Your task to perform on an android device: toggle notification dots Image 0: 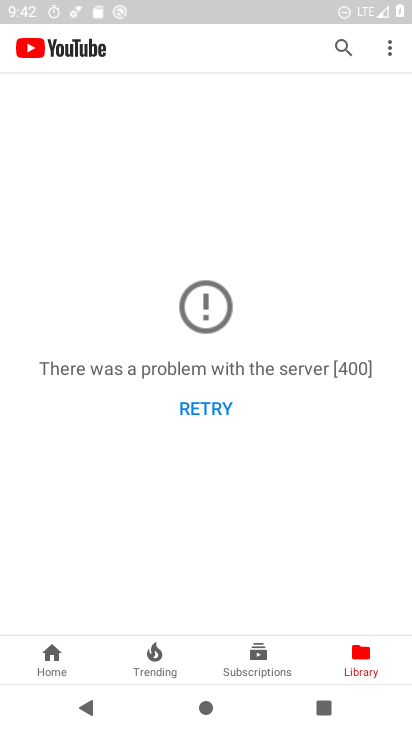
Step 0: press home button
Your task to perform on an android device: toggle notification dots Image 1: 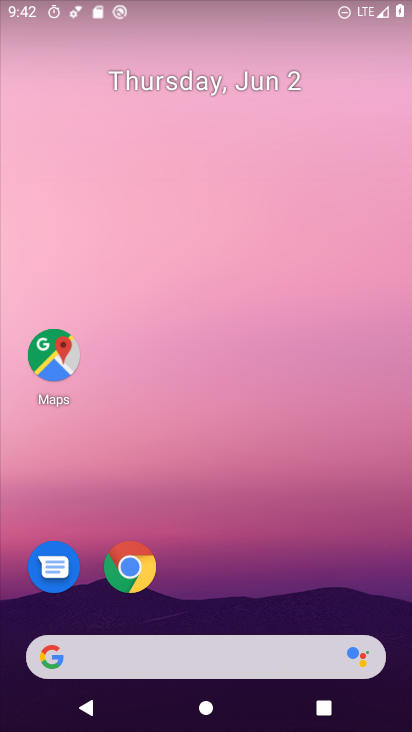
Step 1: drag from (384, 593) to (332, 9)
Your task to perform on an android device: toggle notification dots Image 2: 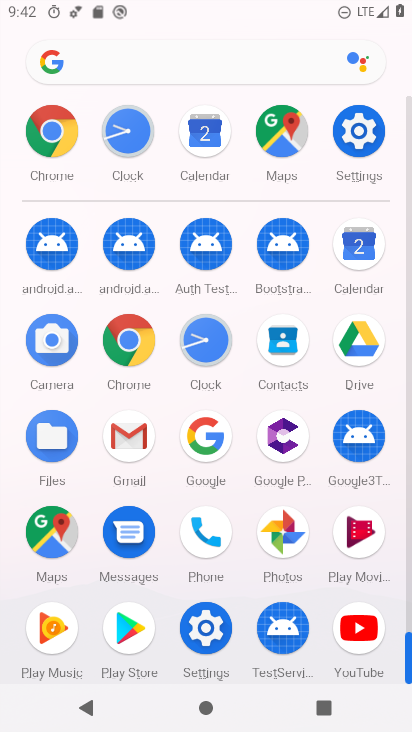
Step 2: click (206, 644)
Your task to perform on an android device: toggle notification dots Image 3: 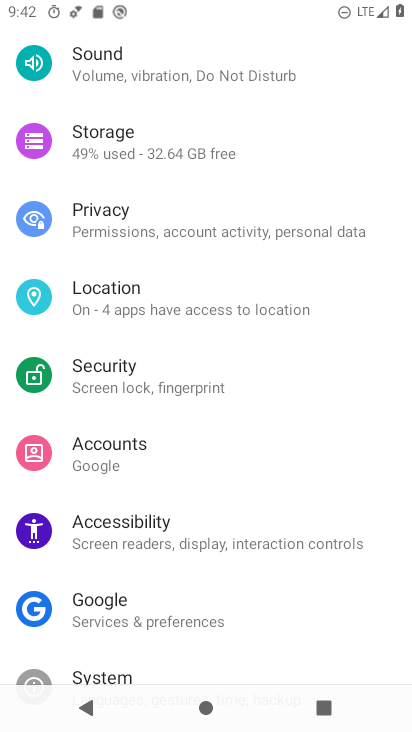
Step 3: drag from (230, 246) to (222, 630)
Your task to perform on an android device: toggle notification dots Image 4: 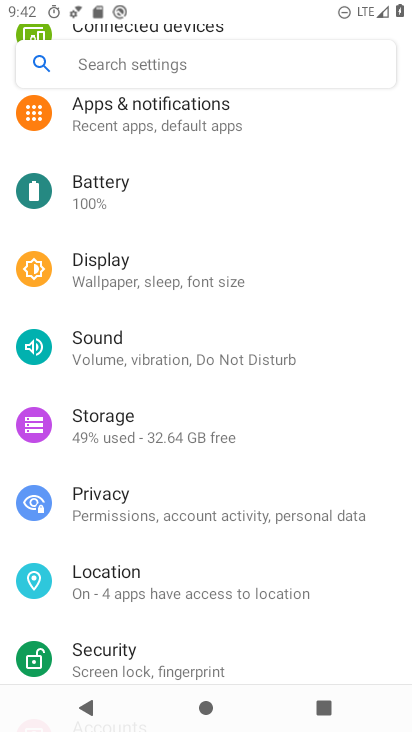
Step 4: click (218, 124)
Your task to perform on an android device: toggle notification dots Image 5: 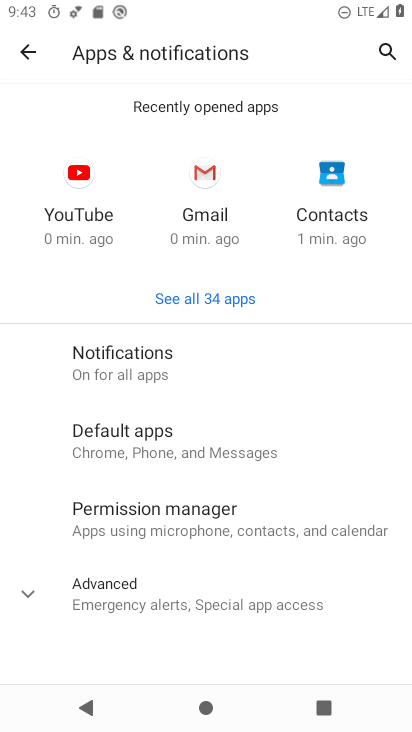
Step 5: drag from (282, 643) to (335, 263)
Your task to perform on an android device: toggle notification dots Image 6: 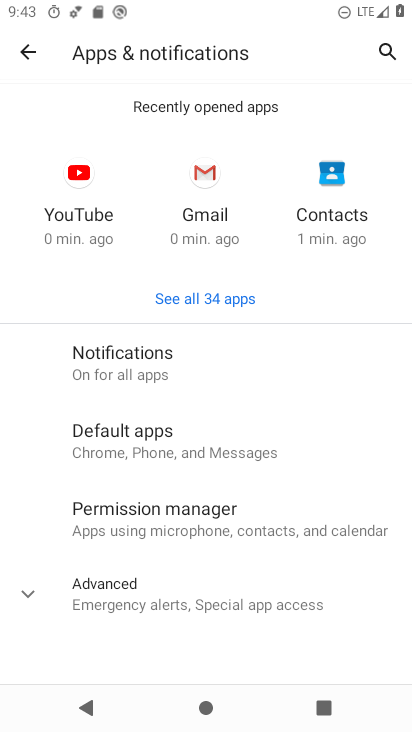
Step 6: click (201, 602)
Your task to perform on an android device: toggle notification dots Image 7: 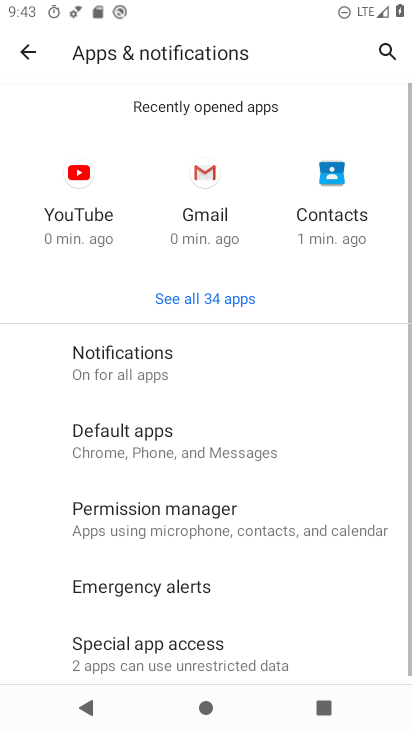
Step 7: drag from (292, 626) to (330, 280)
Your task to perform on an android device: toggle notification dots Image 8: 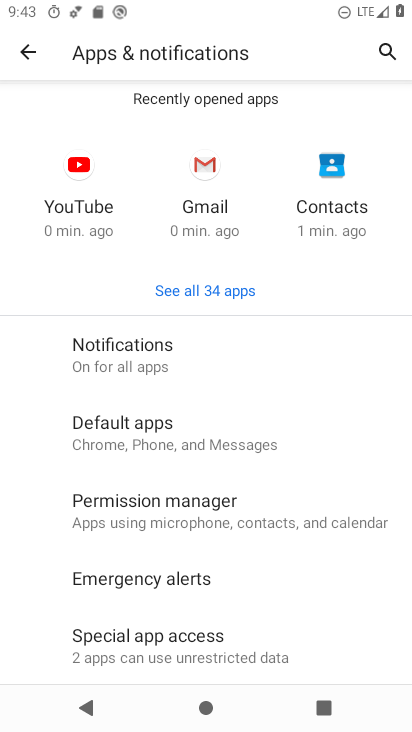
Step 8: click (200, 639)
Your task to perform on an android device: toggle notification dots Image 9: 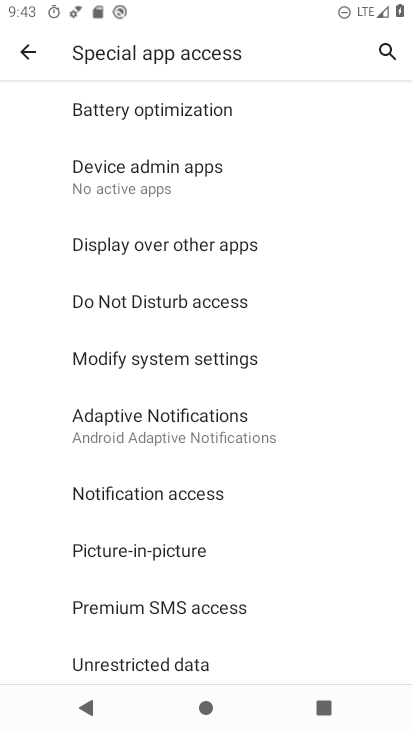
Step 9: click (34, 48)
Your task to perform on an android device: toggle notification dots Image 10: 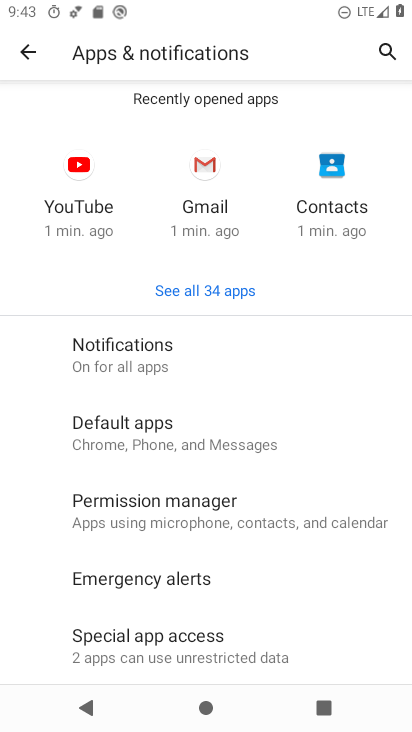
Step 10: click (176, 366)
Your task to perform on an android device: toggle notification dots Image 11: 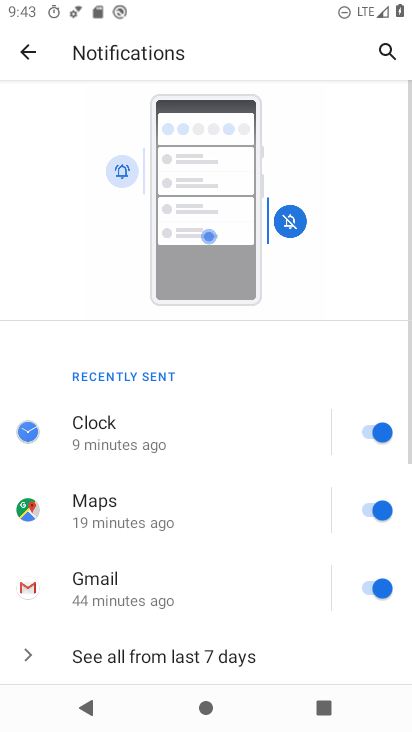
Step 11: drag from (280, 652) to (300, 295)
Your task to perform on an android device: toggle notification dots Image 12: 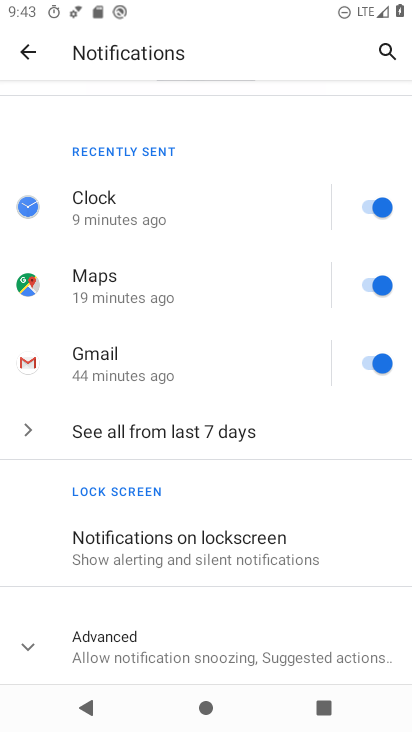
Step 12: click (314, 649)
Your task to perform on an android device: toggle notification dots Image 13: 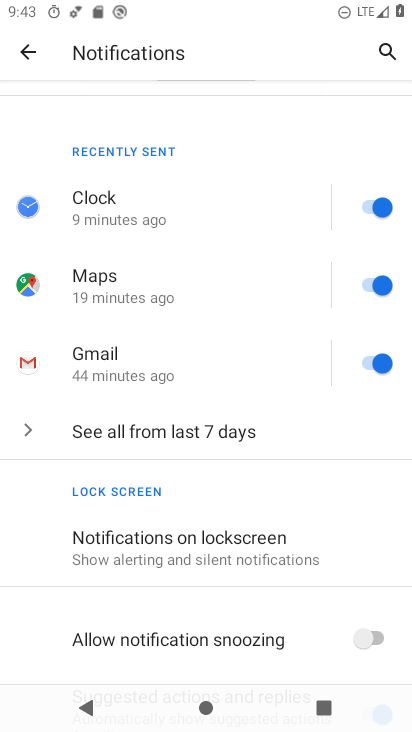
Step 13: click (385, 637)
Your task to perform on an android device: toggle notification dots Image 14: 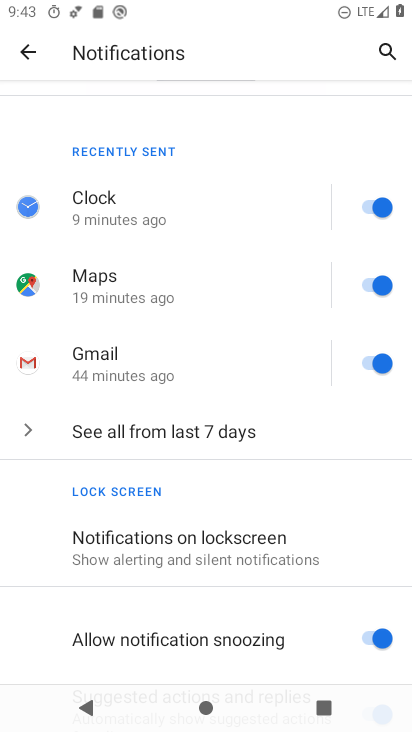
Step 14: task complete